Your task to perform on an android device: empty trash in google photos Image 0: 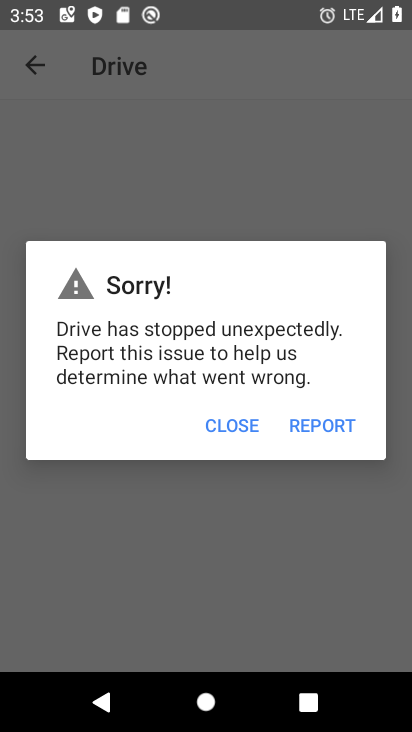
Step 0: press home button
Your task to perform on an android device: empty trash in google photos Image 1: 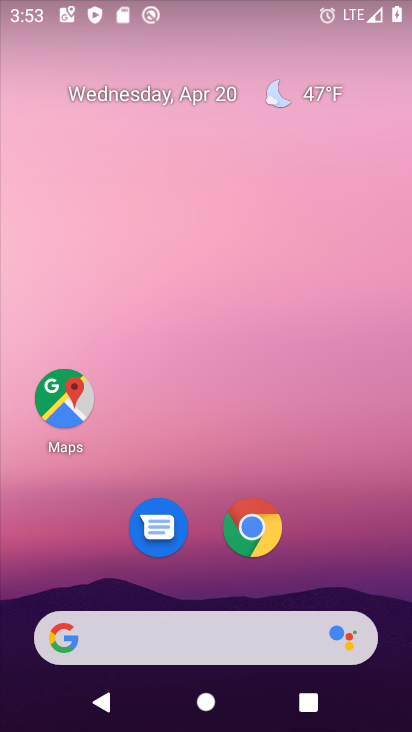
Step 1: drag from (203, 549) to (236, 84)
Your task to perform on an android device: empty trash in google photos Image 2: 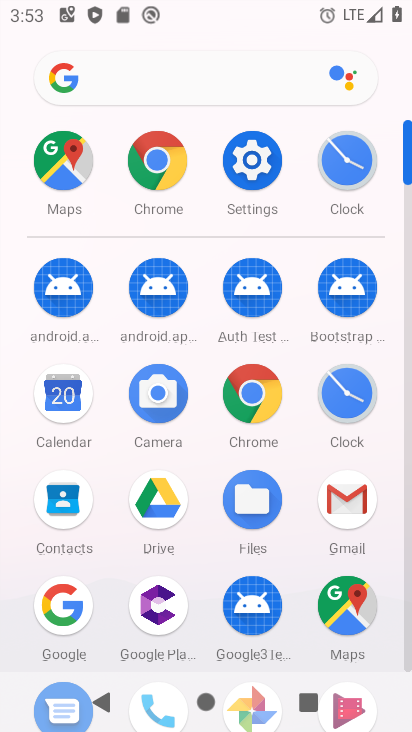
Step 2: drag from (291, 608) to (313, 223)
Your task to perform on an android device: empty trash in google photos Image 3: 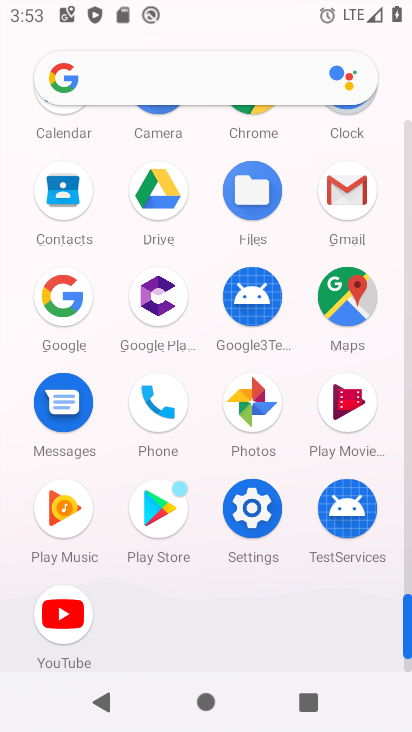
Step 3: click (272, 408)
Your task to perform on an android device: empty trash in google photos Image 4: 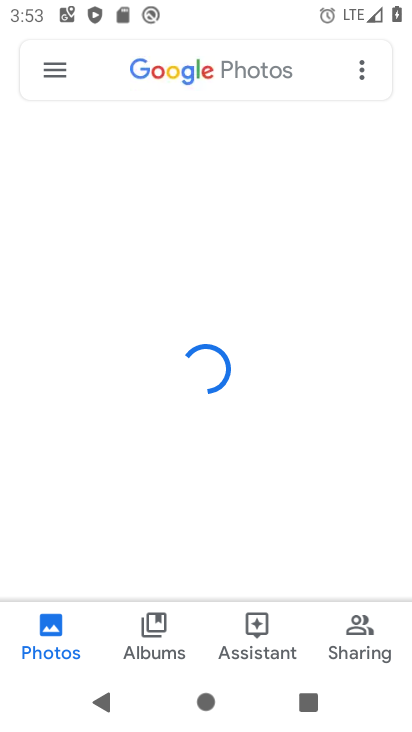
Step 4: click (54, 70)
Your task to perform on an android device: empty trash in google photos Image 5: 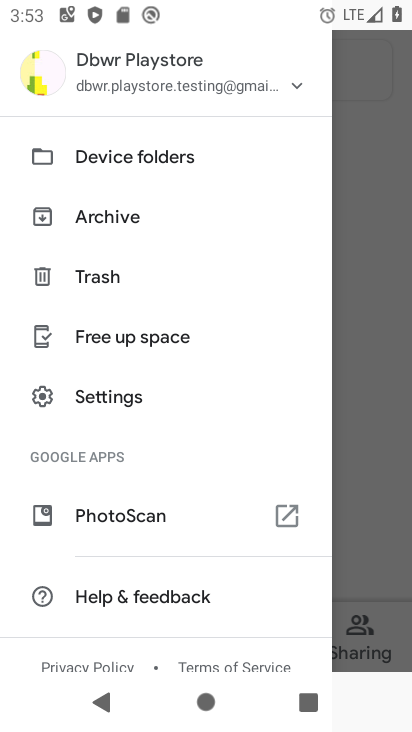
Step 5: click (108, 284)
Your task to perform on an android device: empty trash in google photos Image 6: 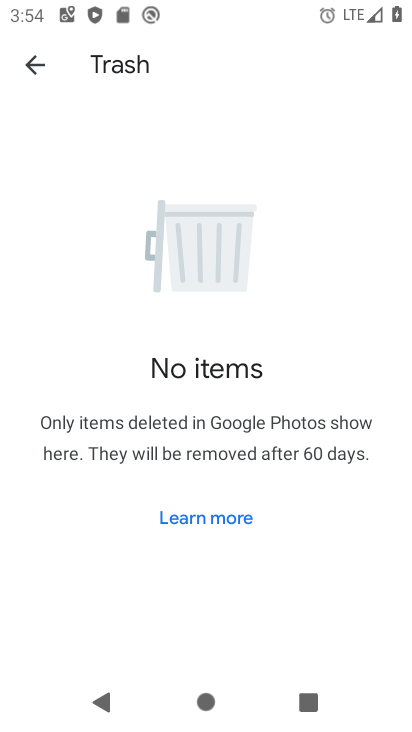
Step 6: task complete